Your task to perform on an android device: see tabs open on other devices in the chrome app Image 0: 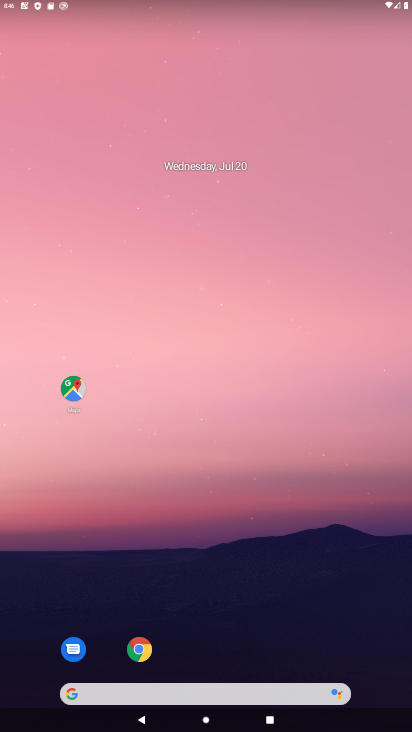
Step 0: drag from (252, 664) to (254, 126)
Your task to perform on an android device: see tabs open on other devices in the chrome app Image 1: 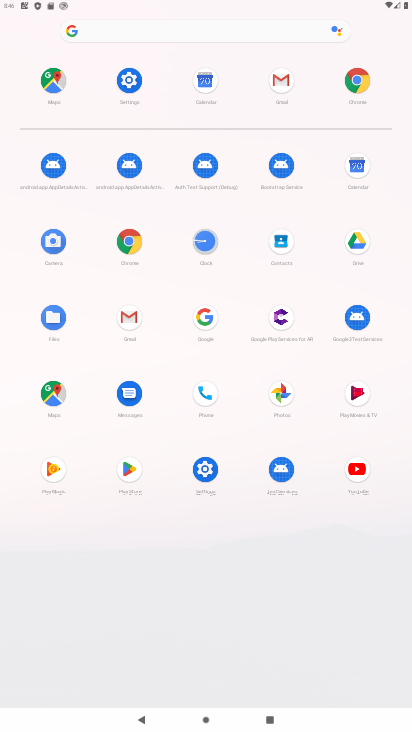
Step 1: click (348, 97)
Your task to perform on an android device: see tabs open on other devices in the chrome app Image 2: 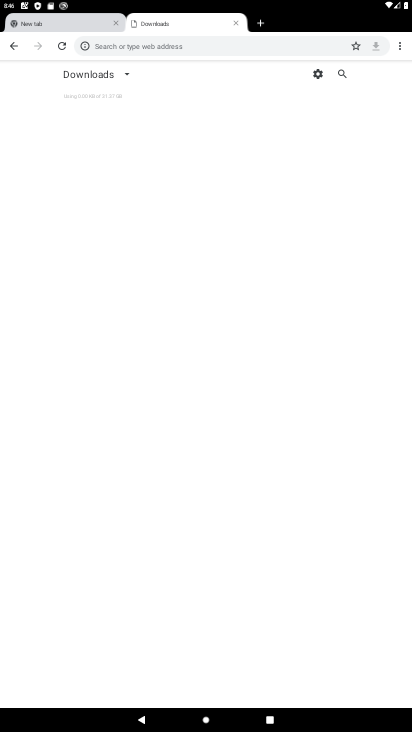
Step 2: click (403, 43)
Your task to perform on an android device: see tabs open on other devices in the chrome app Image 3: 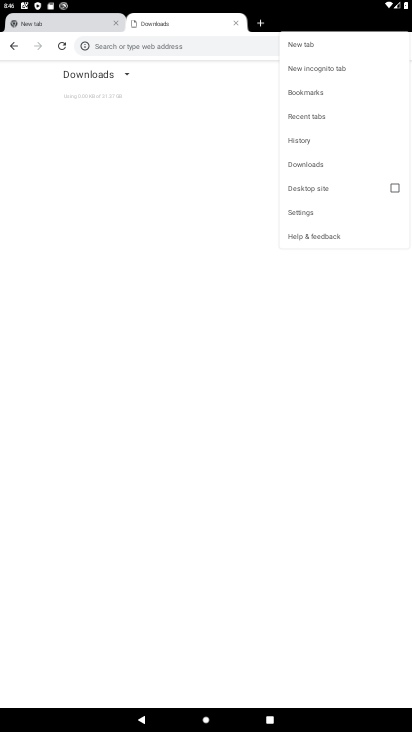
Step 3: click (325, 210)
Your task to perform on an android device: see tabs open on other devices in the chrome app Image 4: 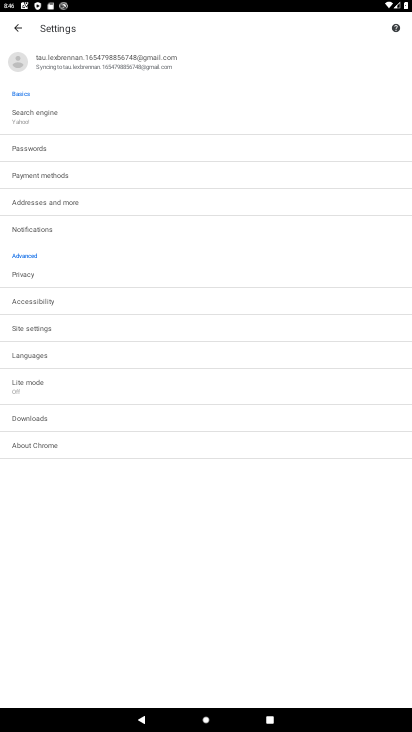
Step 4: task complete